Your task to perform on an android device: Turn off the flashlight Image 0: 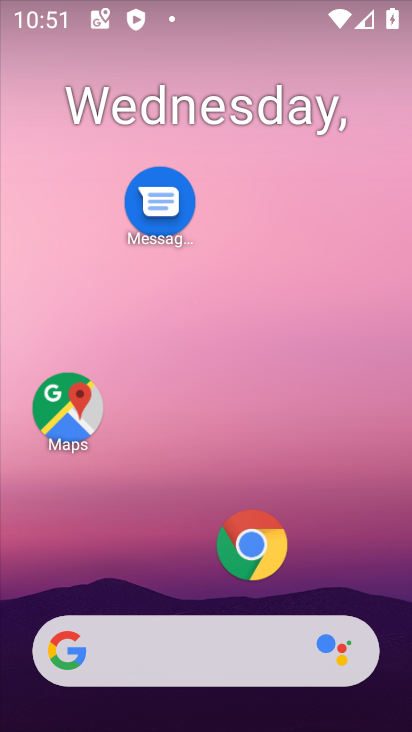
Step 0: drag from (191, 582) to (191, 209)
Your task to perform on an android device: Turn off the flashlight Image 1: 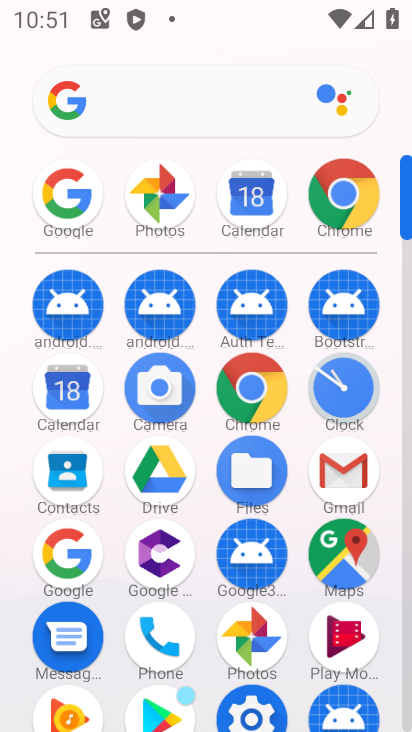
Step 1: drag from (208, 650) to (211, 459)
Your task to perform on an android device: Turn off the flashlight Image 2: 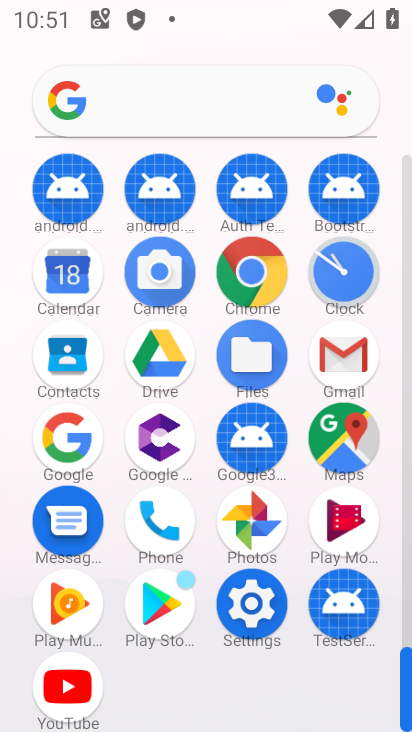
Step 2: click (255, 622)
Your task to perform on an android device: Turn off the flashlight Image 3: 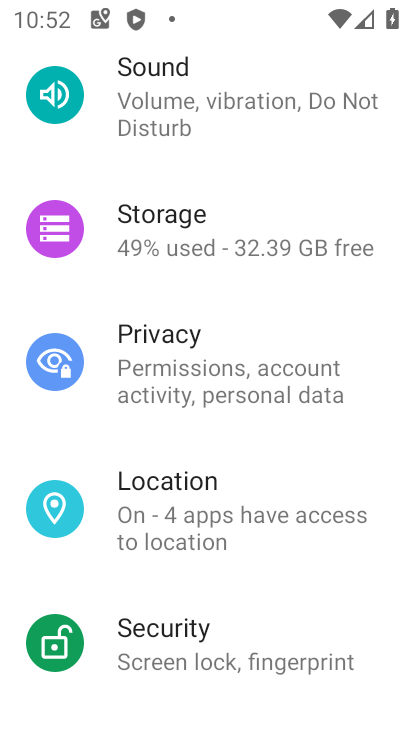
Step 3: task complete